Your task to perform on an android device: turn notification dots off Image 0: 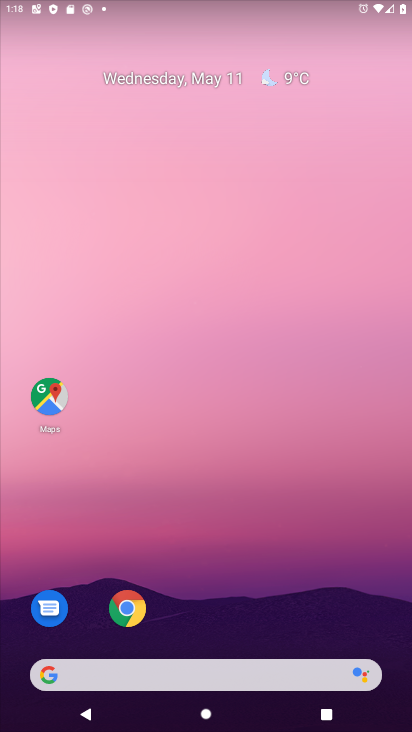
Step 0: drag from (194, 602) to (151, 272)
Your task to perform on an android device: turn notification dots off Image 1: 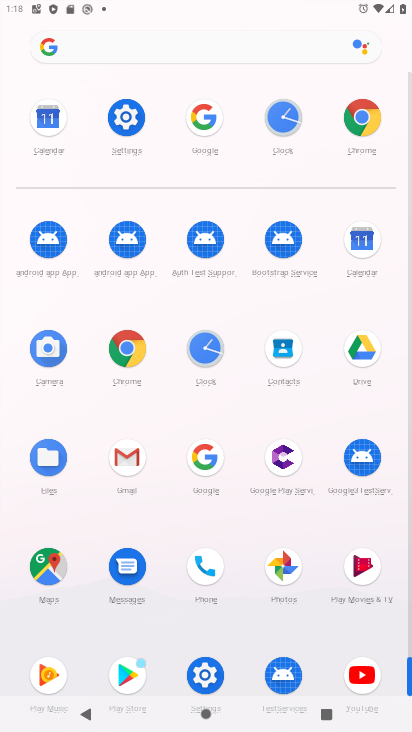
Step 1: click (125, 129)
Your task to perform on an android device: turn notification dots off Image 2: 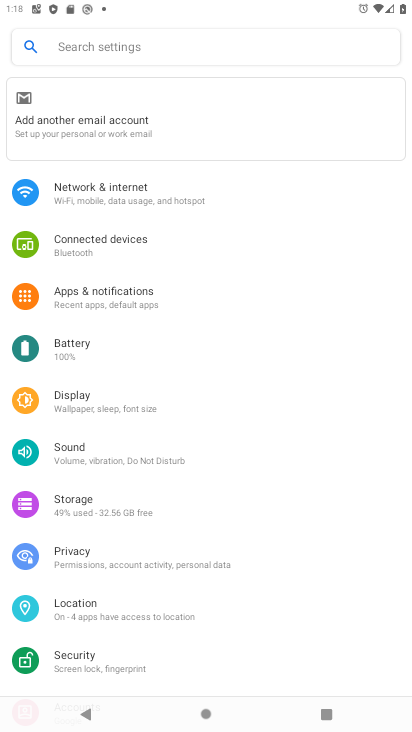
Step 2: click (144, 294)
Your task to perform on an android device: turn notification dots off Image 3: 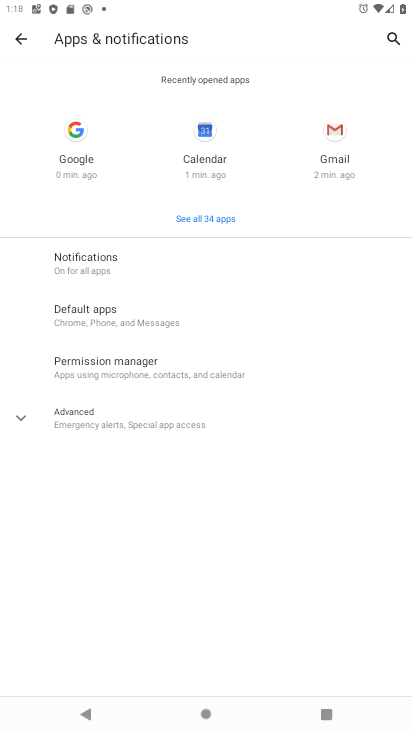
Step 3: click (142, 267)
Your task to perform on an android device: turn notification dots off Image 4: 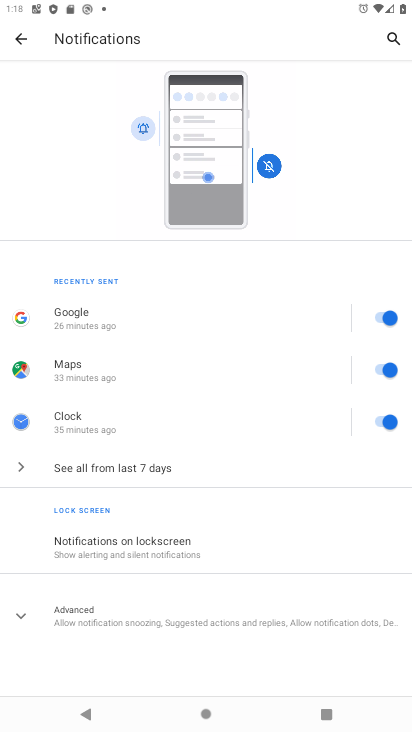
Step 4: drag from (215, 521) to (187, 90)
Your task to perform on an android device: turn notification dots off Image 5: 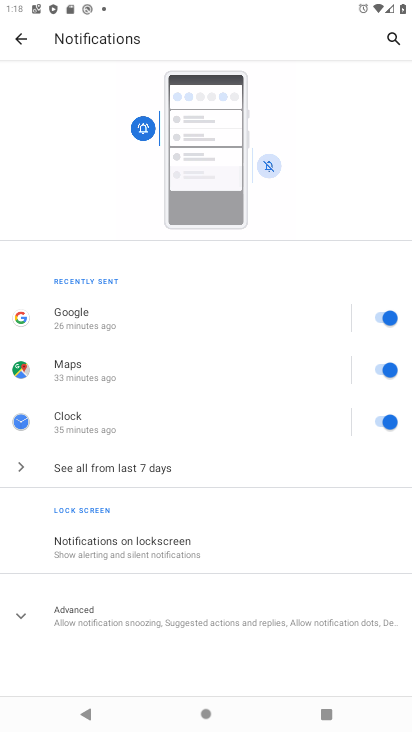
Step 5: click (140, 619)
Your task to perform on an android device: turn notification dots off Image 6: 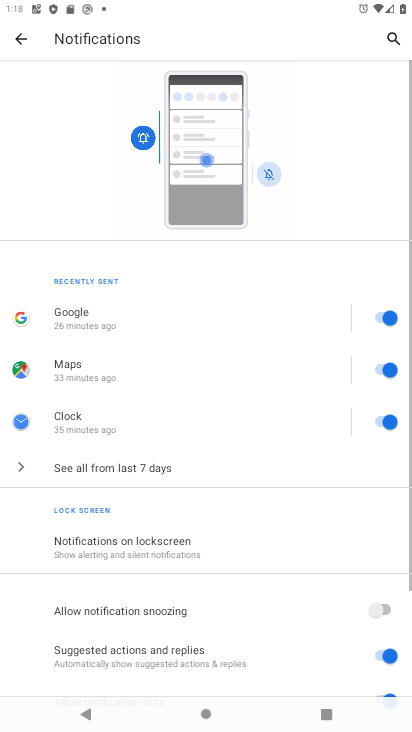
Step 6: drag from (140, 619) to (140, 341)
Your task to perform on an android device: turn notification dots off Image 7: 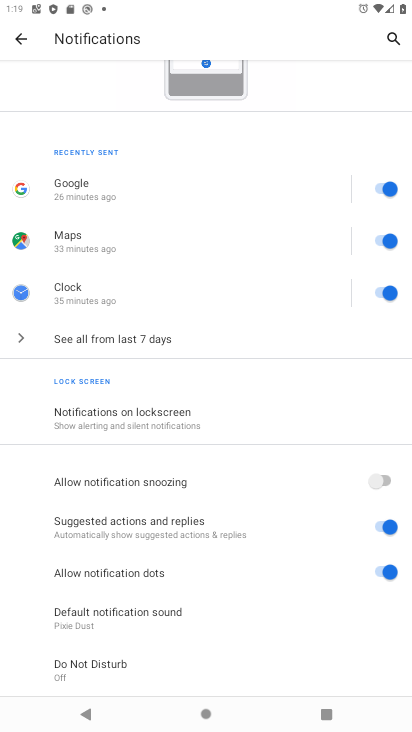
Step 7: click (381, 568)
Your task to perform on an android device: turn notification dots off Image 8: 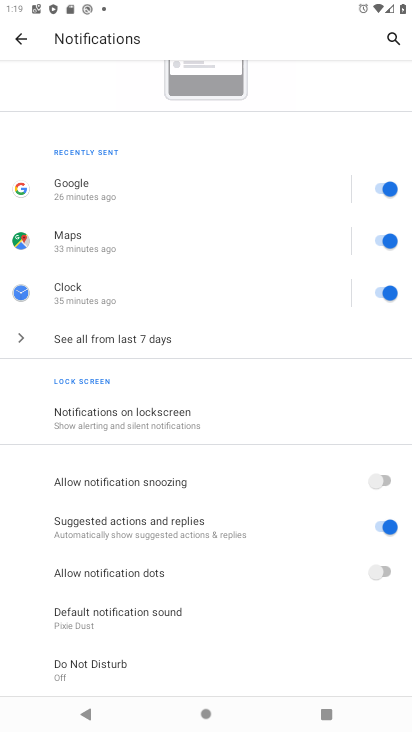
Step 8: task complete